Your task to perform on an android device: set default search engine in the chrome app Image 0: 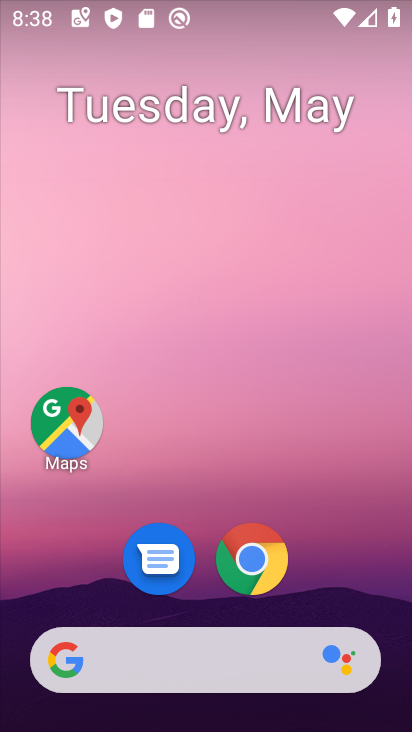
Step 0: drag from (377, 564) to (351, 128)
Your task to perform on an android device: set default search engine in the chrome app Image 1: 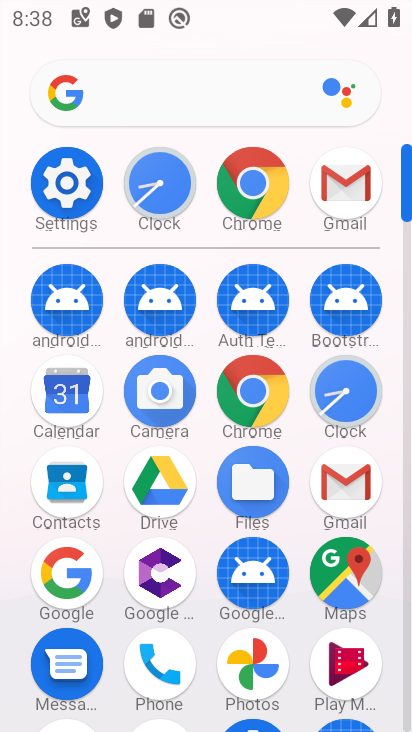
Step 1: click (276, 184)
Your task to perform on an android device: set default search engine in the chrome app Image 2: 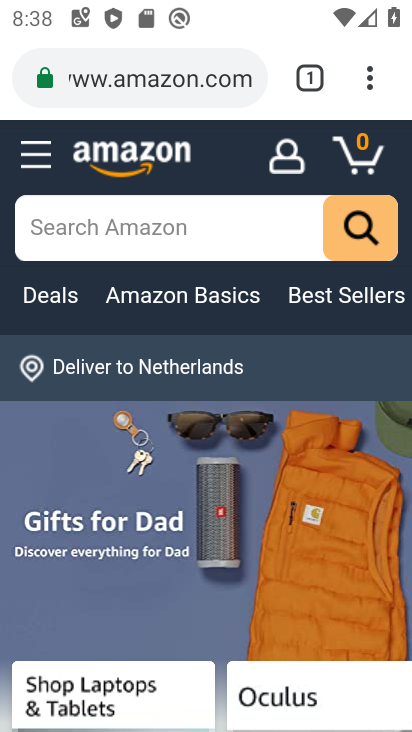
Step 2: drag from (371, 82) to (111, 616)
Your task to perform on an android device: set default search engine in the chrome app Image 3: 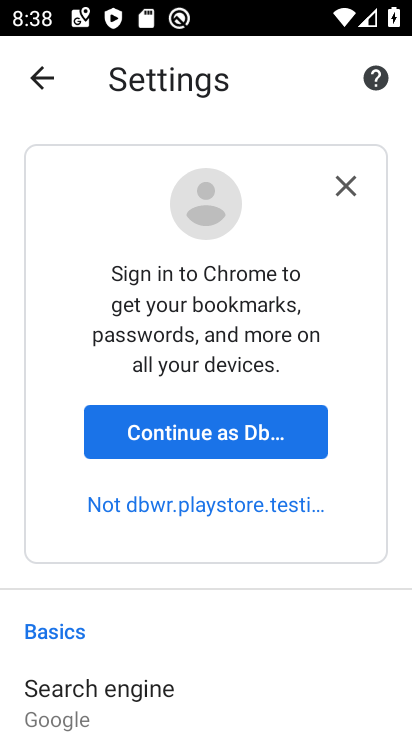
Step 3: drag from (163, 645) to (217, 235)
Your task to perform on an android device: set default search engine in the chrome app Image 4: 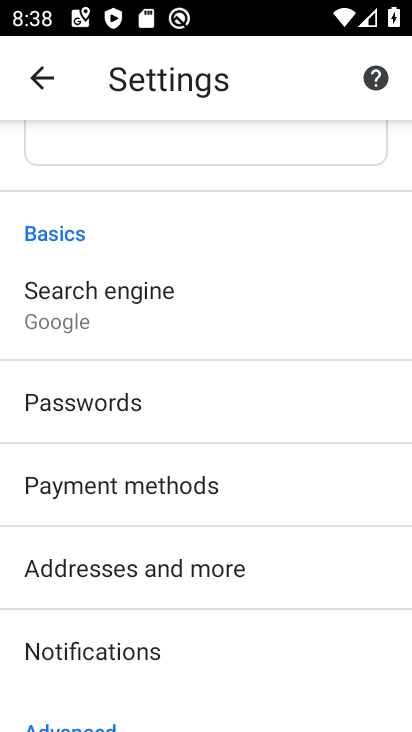
Step 4: click (121, 313)
Your task to perform on an android device: set default search engine in the chrome app Image 5: 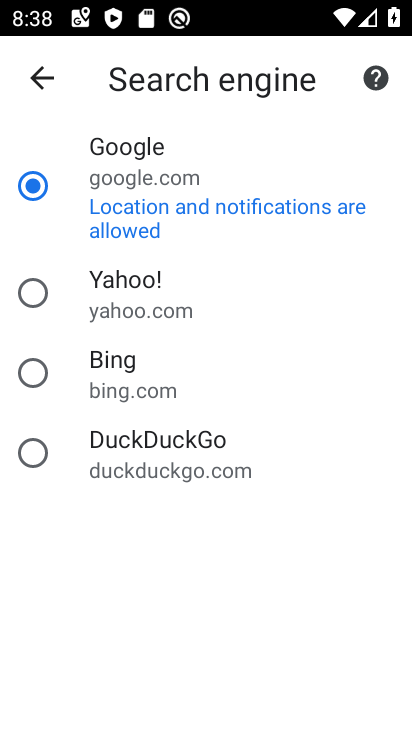
Step 5: task complete